Your task to perform on an android device: open a bookmark in the chrome app Image 0: 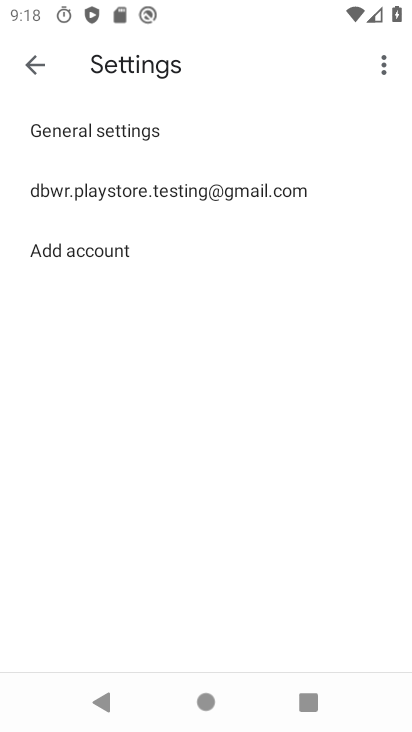
Step 0: press home button
Your task to perform on an android device: open a bookmark in the chrome app Image 1: 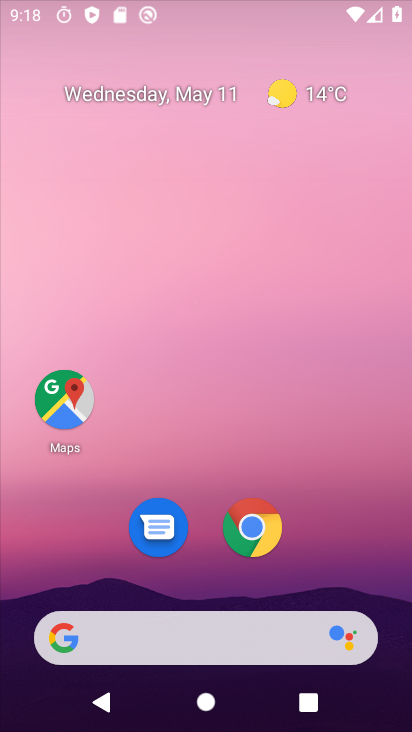
Step 1: drag from (272, 609) to (290, 123)
Your task to perform on an android device: open a bookmark in the chrome app Image 2: 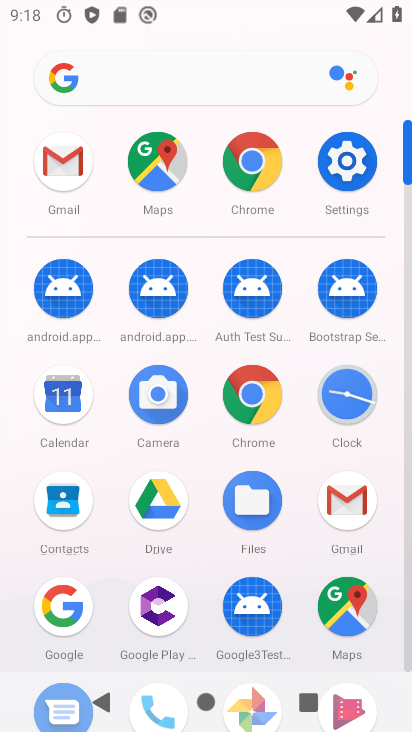
Step 2: drag from (256, 467) to (279, 150)
Your task to perform on an android device: open a bookmark in the chrome app Image 3: 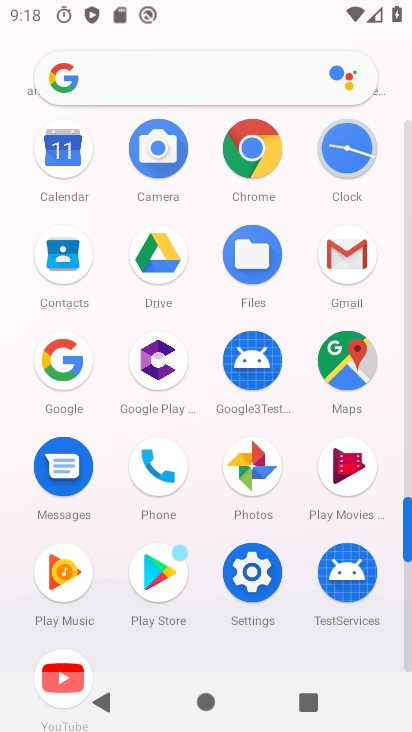
Step 3: click (264, 199)
Your task to perform on an android device: open a bookmark in the chrome app Image 4: 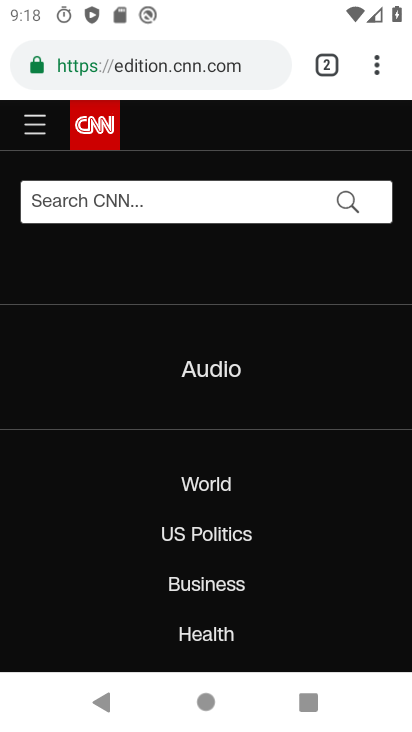
Step 4: click (378, 68)
Your task to perform on an android device: open a bookmark in the chrome app Image 5: 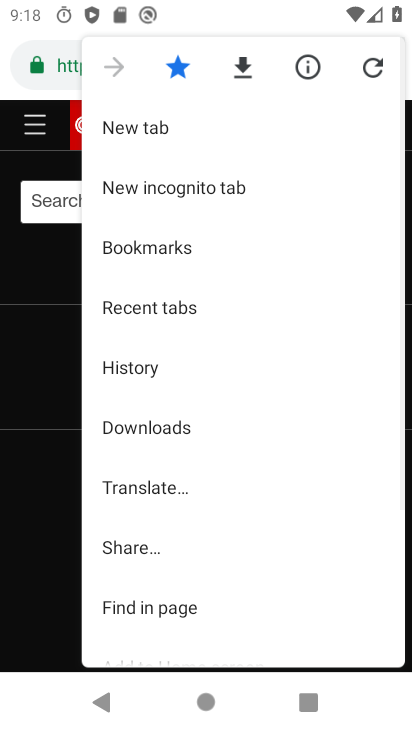
Step 5: drag from (283, 381) to (281, 212)
Your task to perform on an android device: open a bookmark in the chrome app Image 6: 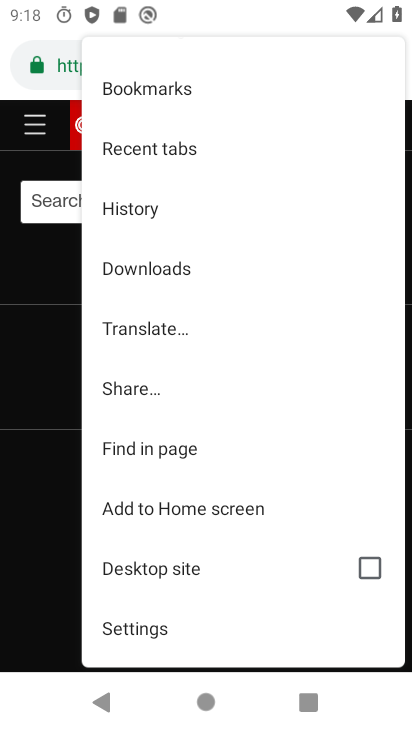
Step 6: click (193, 87)
Your task to perform on an android device: open a bookmark in the chrome app Image 7: 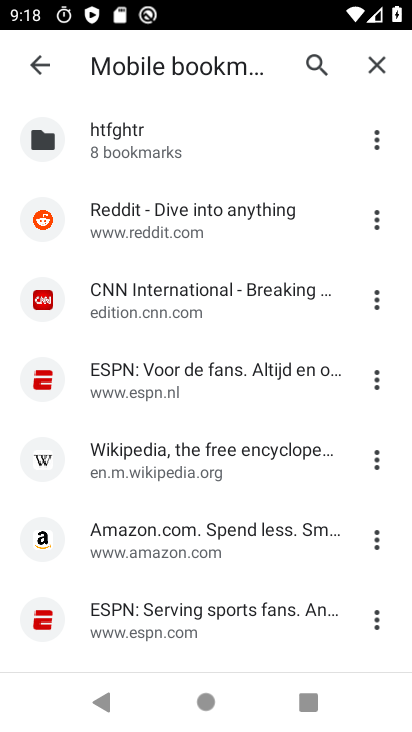
Step 7: drag from (194, 453) to (205, 111)
Your task to perform on an android device: open a bookmark in the chrome app Image 8: 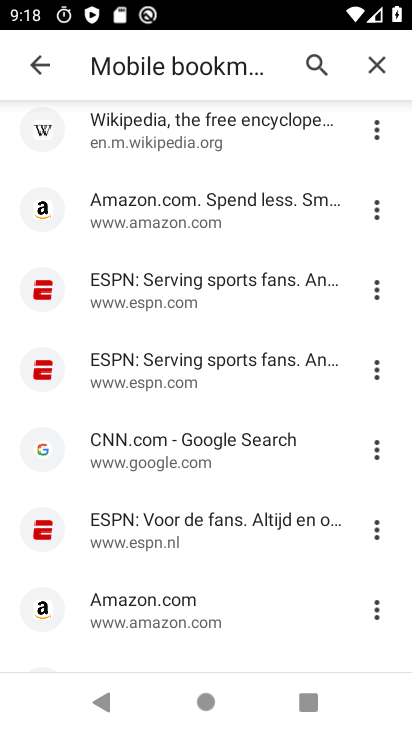
Step 8: click (168, 515)
Your task to perform on an android device: open a bookmark in the chrome app Image 9: 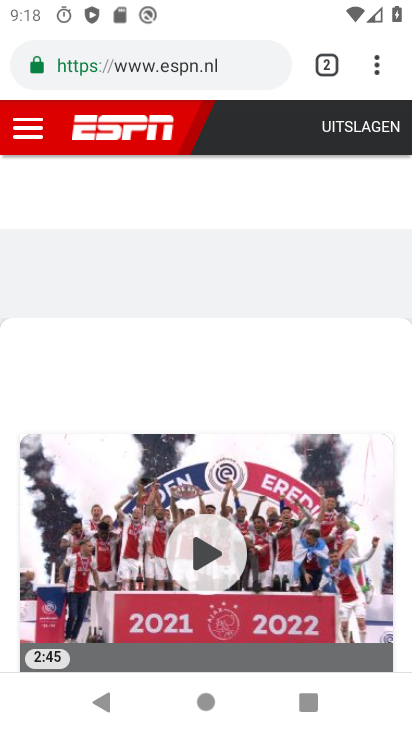
Step 9: task complete